Your task to perform on an android device: open chrome privacy settings Image 0: 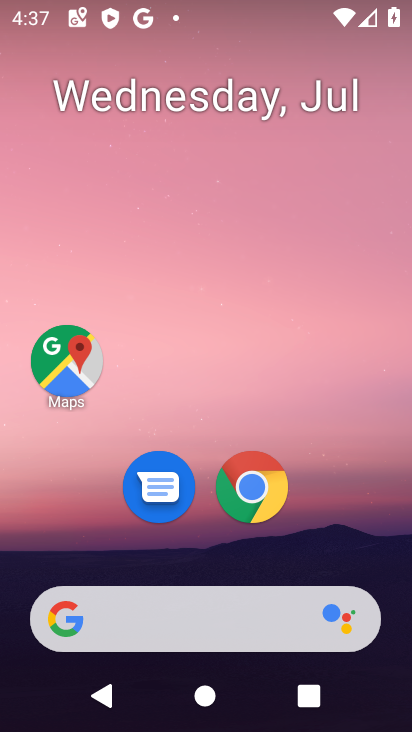
Step 0: click (232, 490)
Your task to perform on an android device: open chrome privacy settings Image 1: 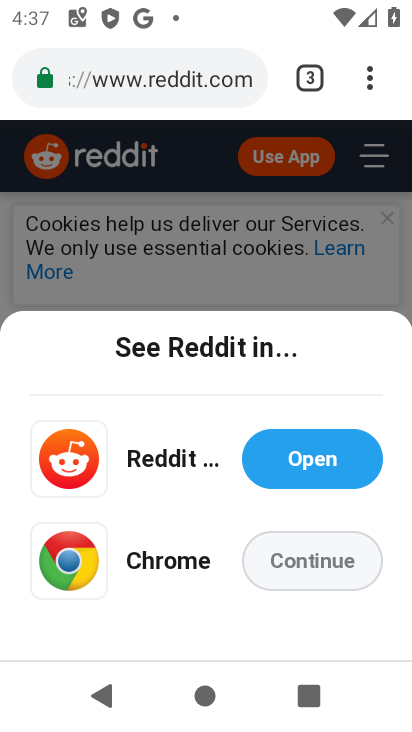
Step 1: drag from (363, 77) to (119, 549)
Your task to perform on an android device: open chrome privacy settings Image 2: 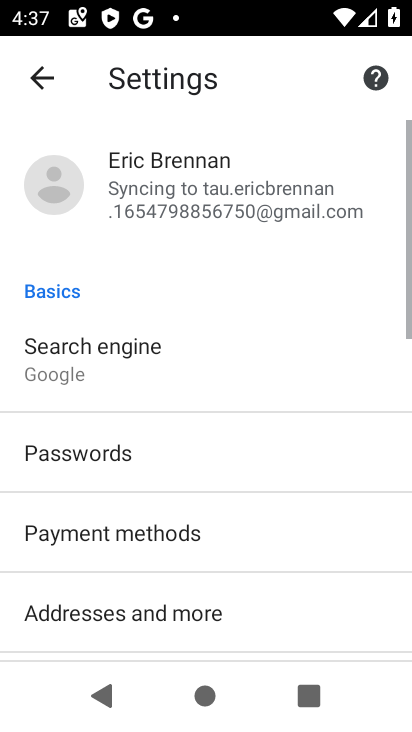
Step 2: drag from (141, 586) to (176, 149)
Your task to perform on an android device: open chrome privacy settings Image 3: 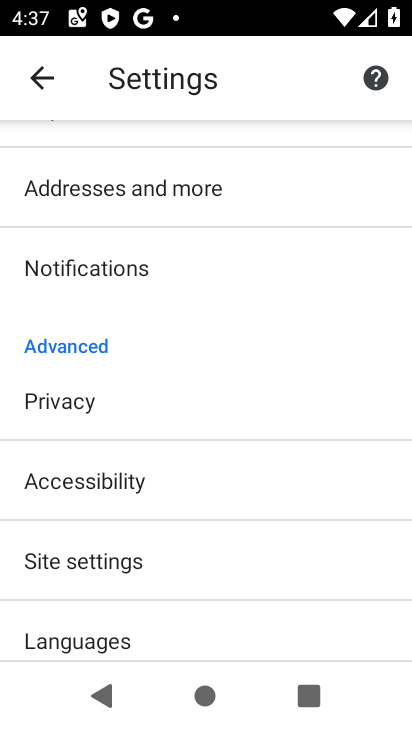
Step 3: click (58, 413)
Your task to perform on an android device: open chrome privacy settings Image 4: 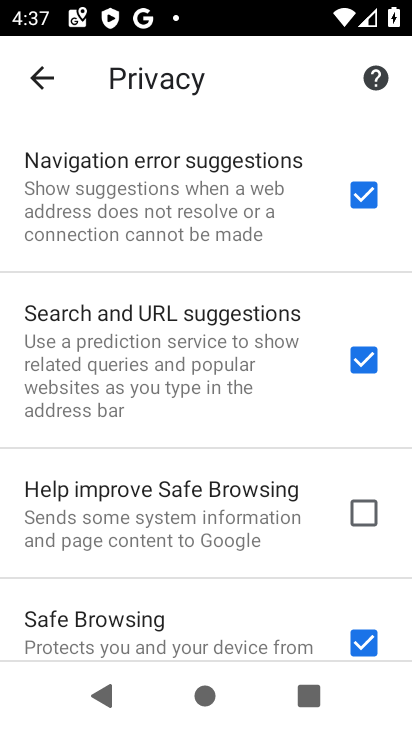
Step 4: task complete